Your task to perform on an android device: Go to Wikipedia Image 0: 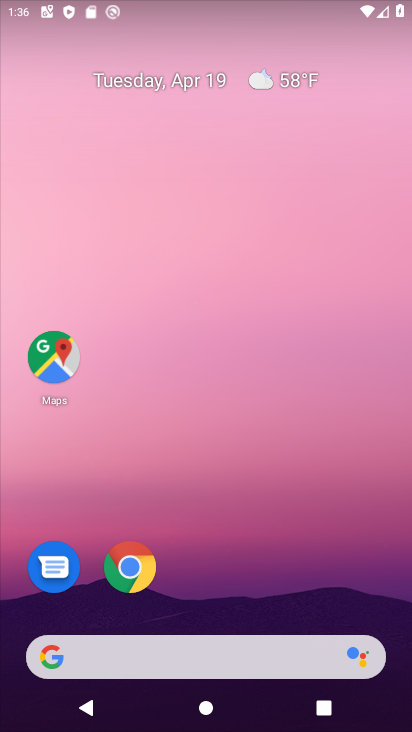
Step 0: click (129, 660)
Your task to perform on an android device: Go to Wikipedia Image 1: 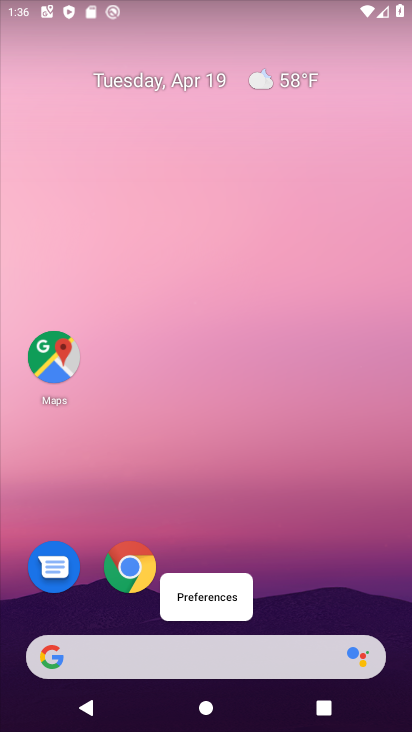
Step 1: click (123, 577)
Your task to perform on an android device: Go to Wikipedia Image 2: 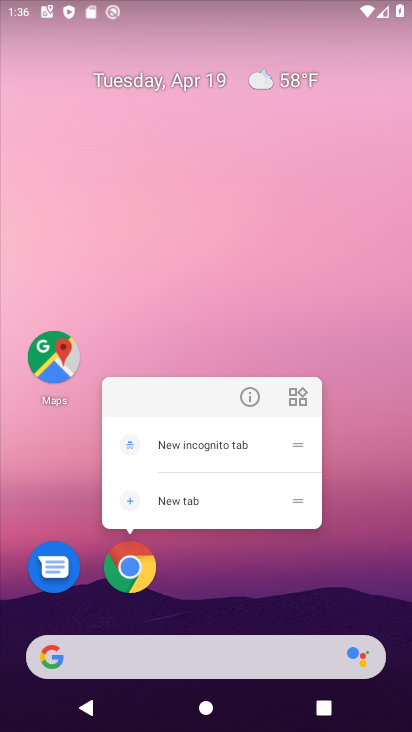
Step 2: click (135, 572)
Your task to perform on an android device: Go to Wikipedia Image 3: 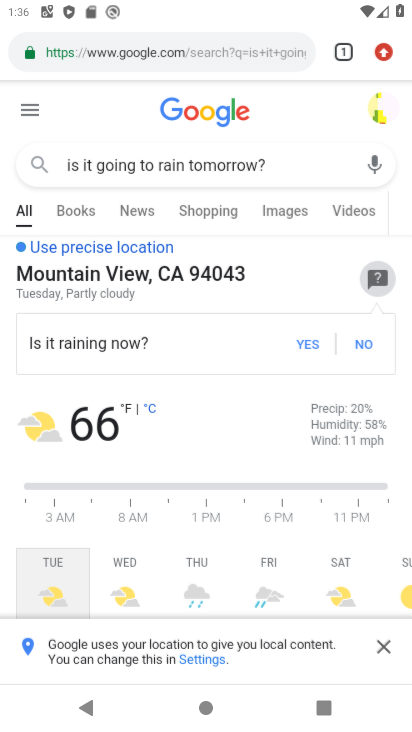
Step 3: click (185, 48)
Your task to perform on an android device: Go to Wikipedia Image 4: 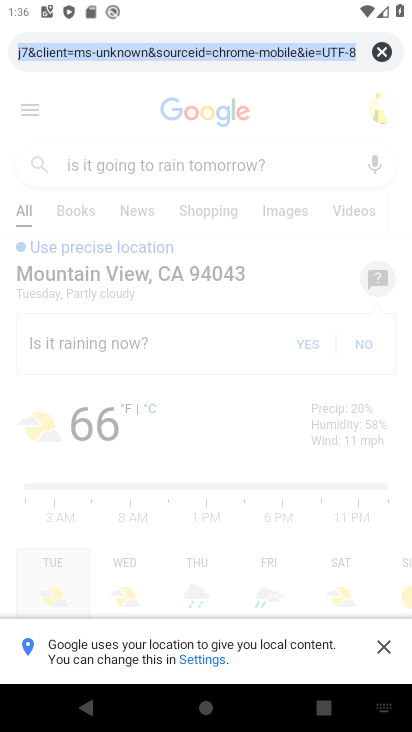
Step 4: type "wikipedia"
Your task to perform on an android device: Go to Wikipedia Image 5: 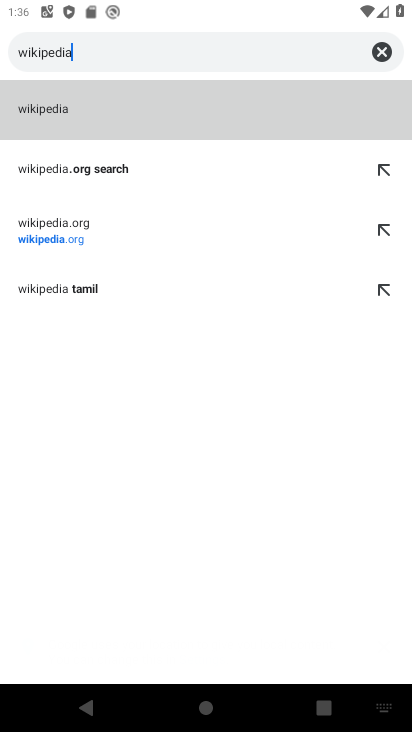
Step 5: click (76, 107)
Your task to perform on an android device: Go to Wikipedia Image 6: 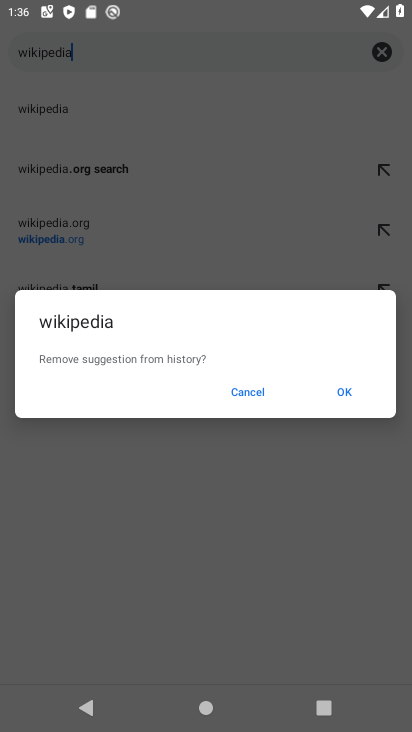
Step 6: click (344, 397)
Your task to perform on an android device: Go to Wikipedia Image 7: 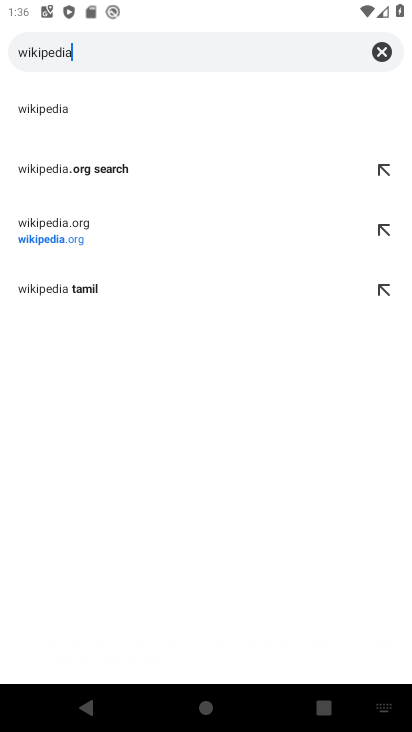
Step 7: click (72, 117)
Your task to perform on an android device: Go to Wikipedia Image 8: 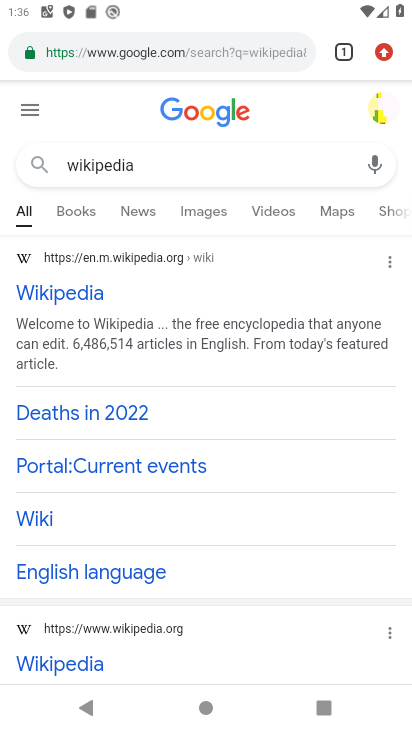
Step 8: click (50, 287)
Your task to perform on an android device: Go to Wikipedia Image 9: 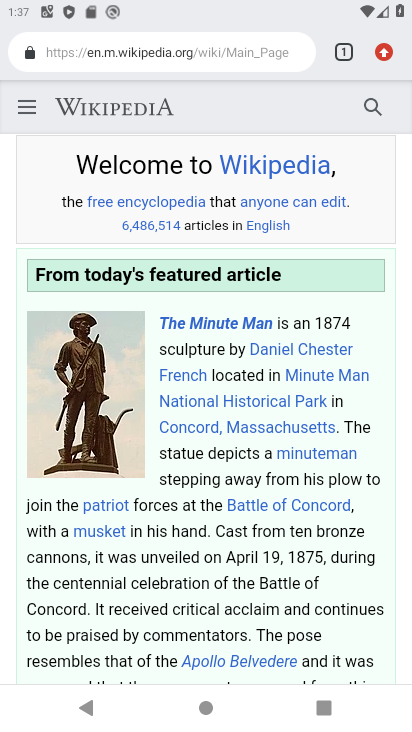
Step 9: task complete